Your task to perform on an android device: check storage Image 0: 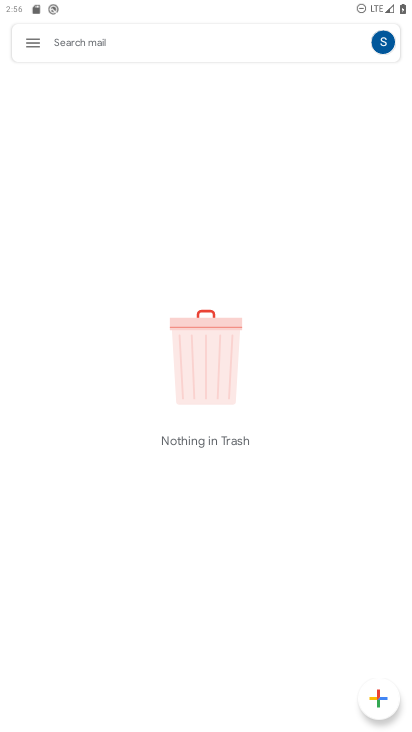
Step 0: press home button
Your task to perform on an android device: check storage Image 1: 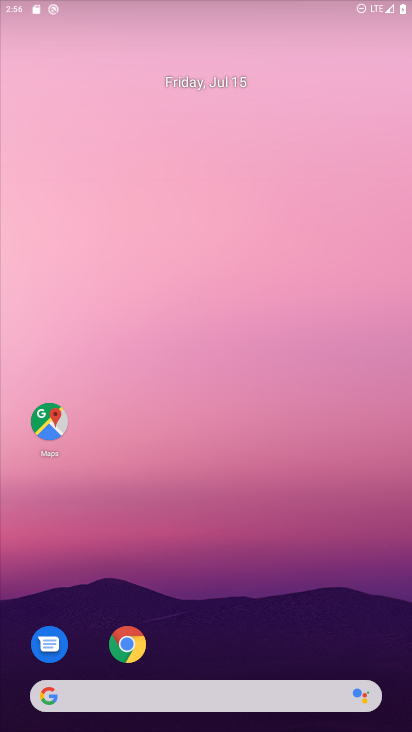
Step 1: drag from (30, 621) to (193, 151)
Your task to perform on an android device: check storage Image 2: 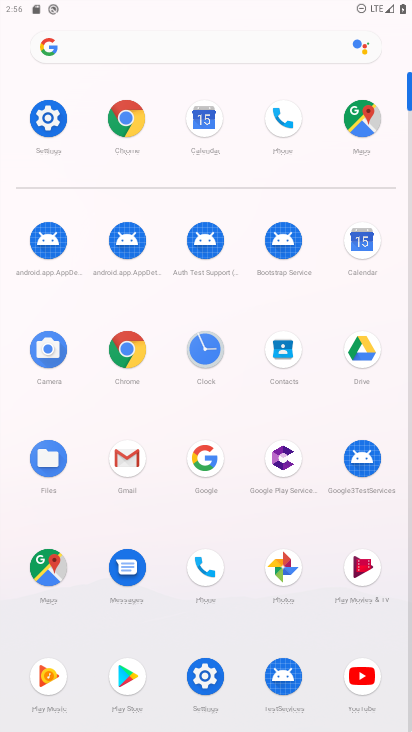
Step 2: click (61, 126)
Your task to perform on an android device: check storage Image 3: 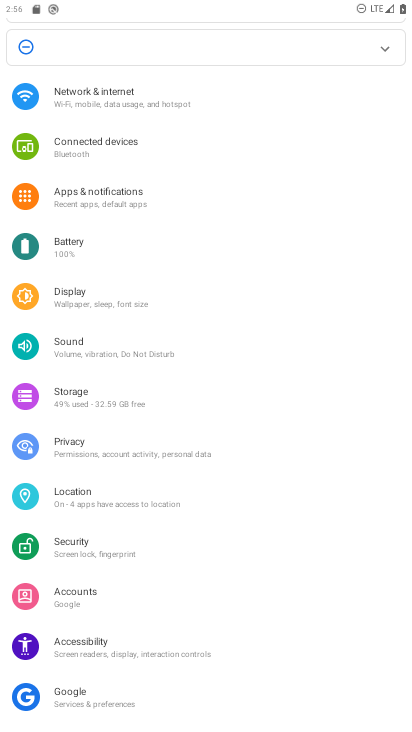
Step 3: drag from (68, 667) to (160, 234)
Your task to perform on an android device: check storage Image 4: 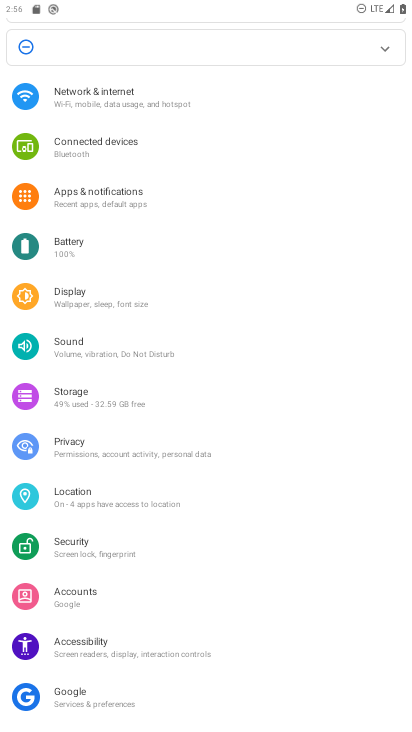
Step 4: click (65, 390)
Your task to perform on an android device: check storage Image 5: 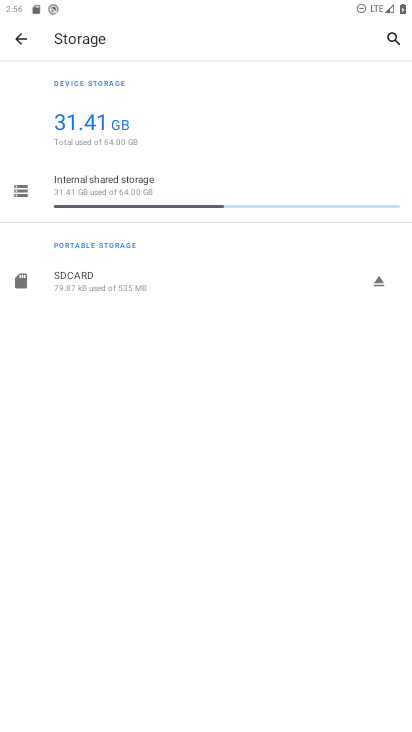
Step 5: task complete